Your task to perform on an android device: empty trash in the gmail app Image 0: 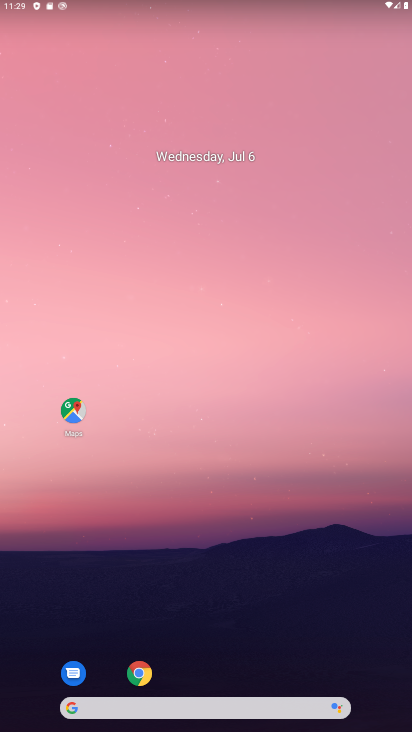
Step 0: drag from (242, 572) to (139, 33)
Your task to perform on an android device: empty trash in the gmail app Image 1: 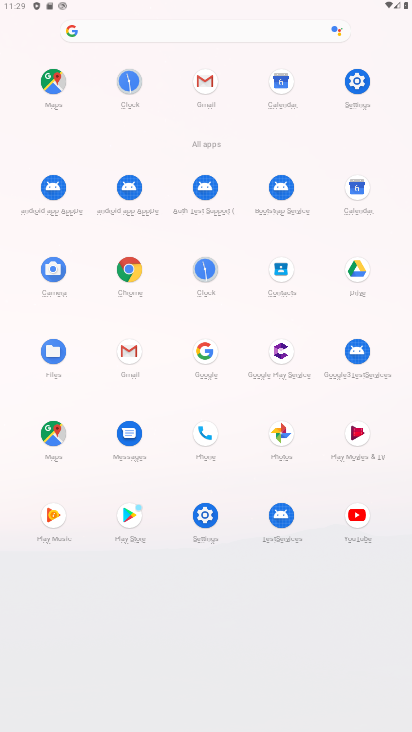
Step 1: click (131, 353)
Your task to perform on an android device: empty trash in the gmail app Image 2: 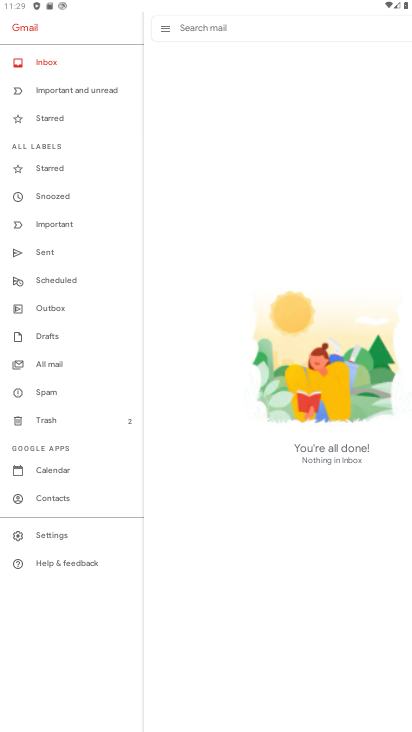
Step 2: click (53, 421)
Your task to perform on an android device: empty trash in the gmail app Image 3: 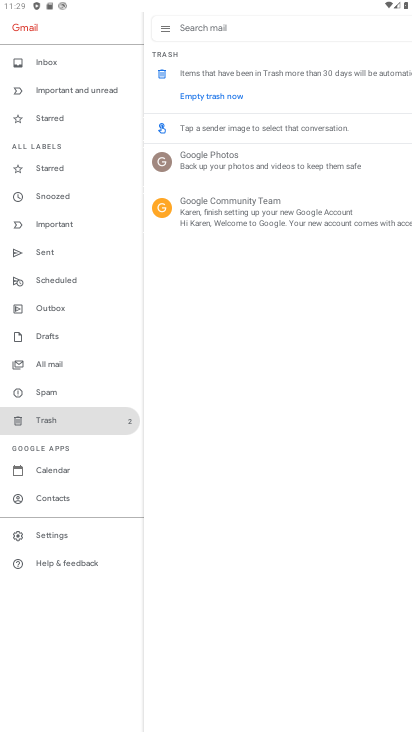
Step 3: click (216, 92)
Your task to perform on an android device: empty trash in the gmail app Image 4: 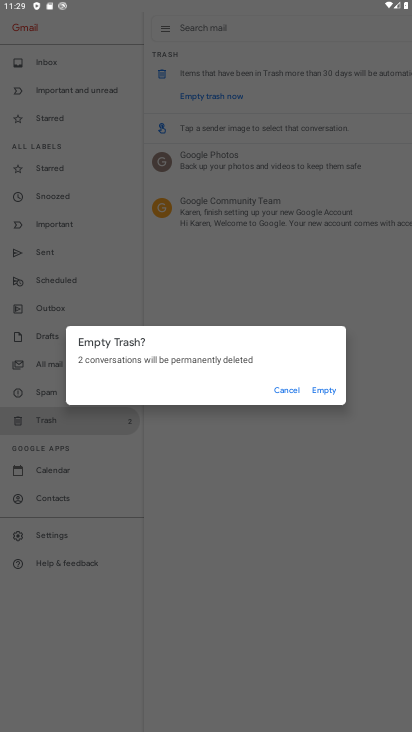
Step 4: click (323, 392)
Your task to perform on an android device: empty trash in the gmail app Image 5: 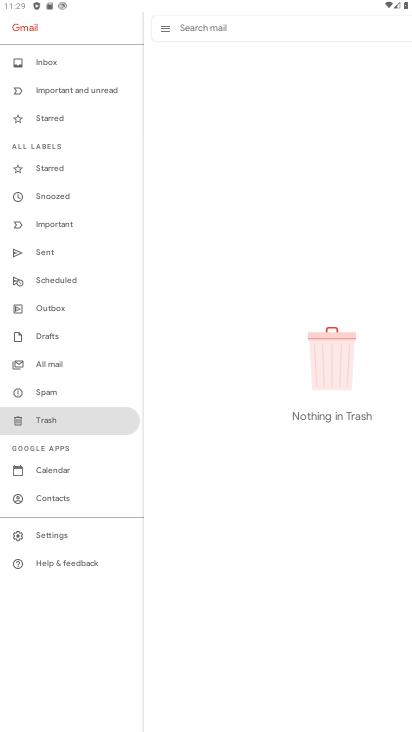
Step 5: task complete